Your task to perform on an android device: Do I have any events tomorrow? Image 0: 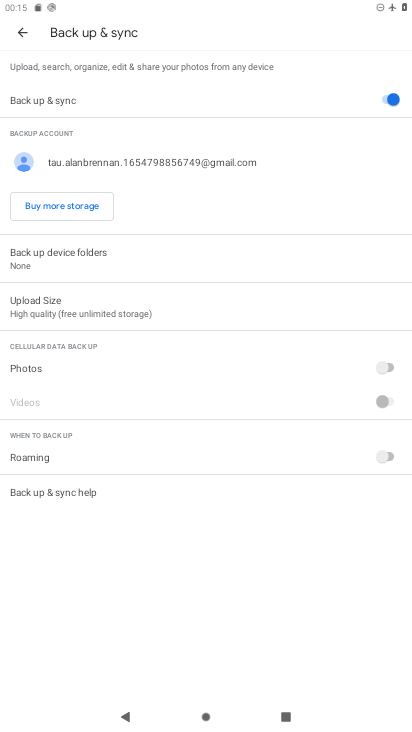
Step 0: press home button
Your task to perform on an android device: Do I have any events tomorrow? Image 1: 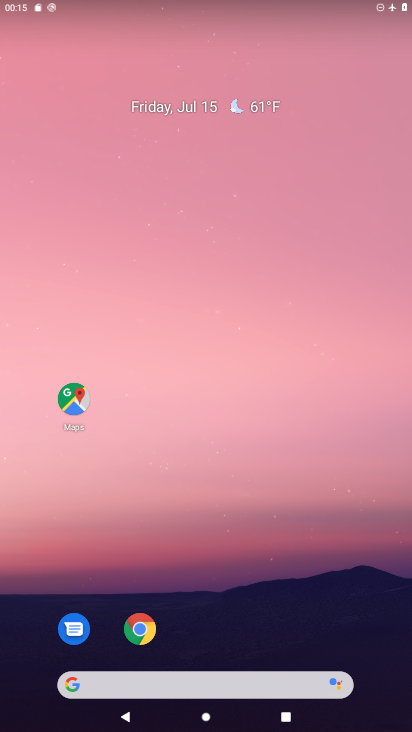
Step 1: click (164, 109)
Your task to perform on an android device: Do I have any events tomorrow? Image 2: 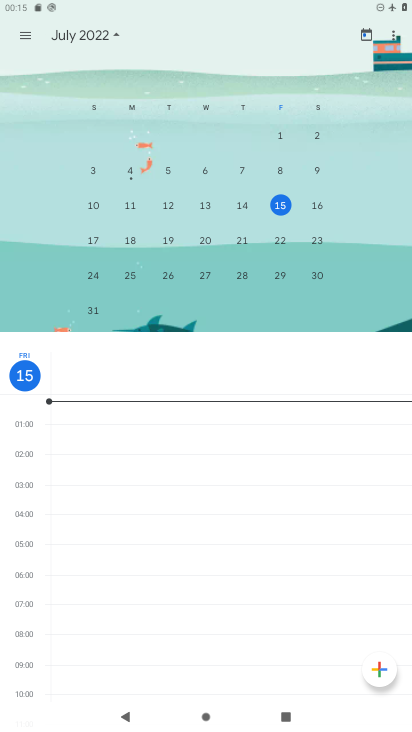
Step 2: click (316, 211)
Your task to perform on an android device: Do I have any events tomorrow? Image 3: 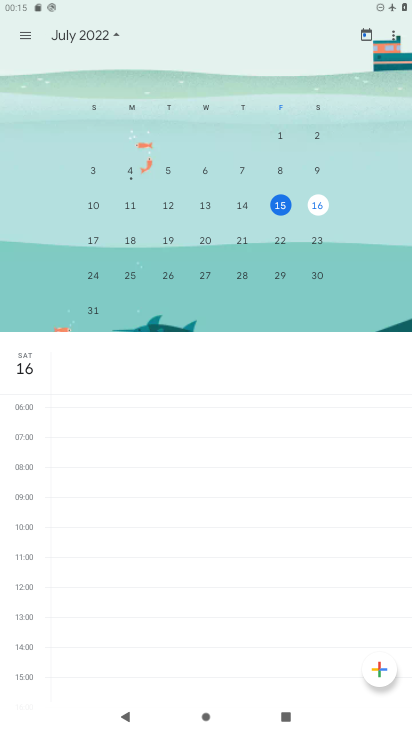
Step 3: task complete